Your task to perform on an android device: clear history in the chrome app Image 0: 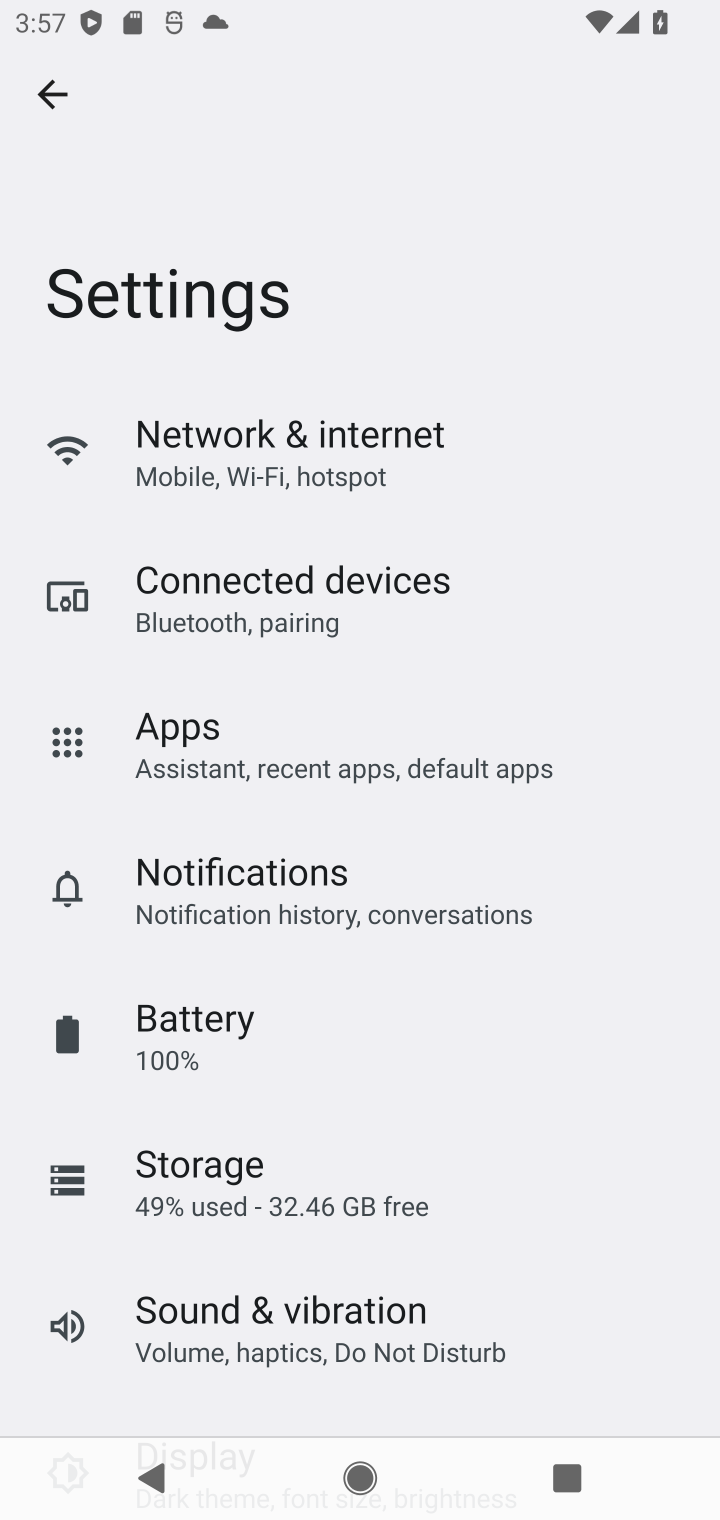
Step 0: press home button
Your task to perform on an android device: clear history in the chrome app Image 1: 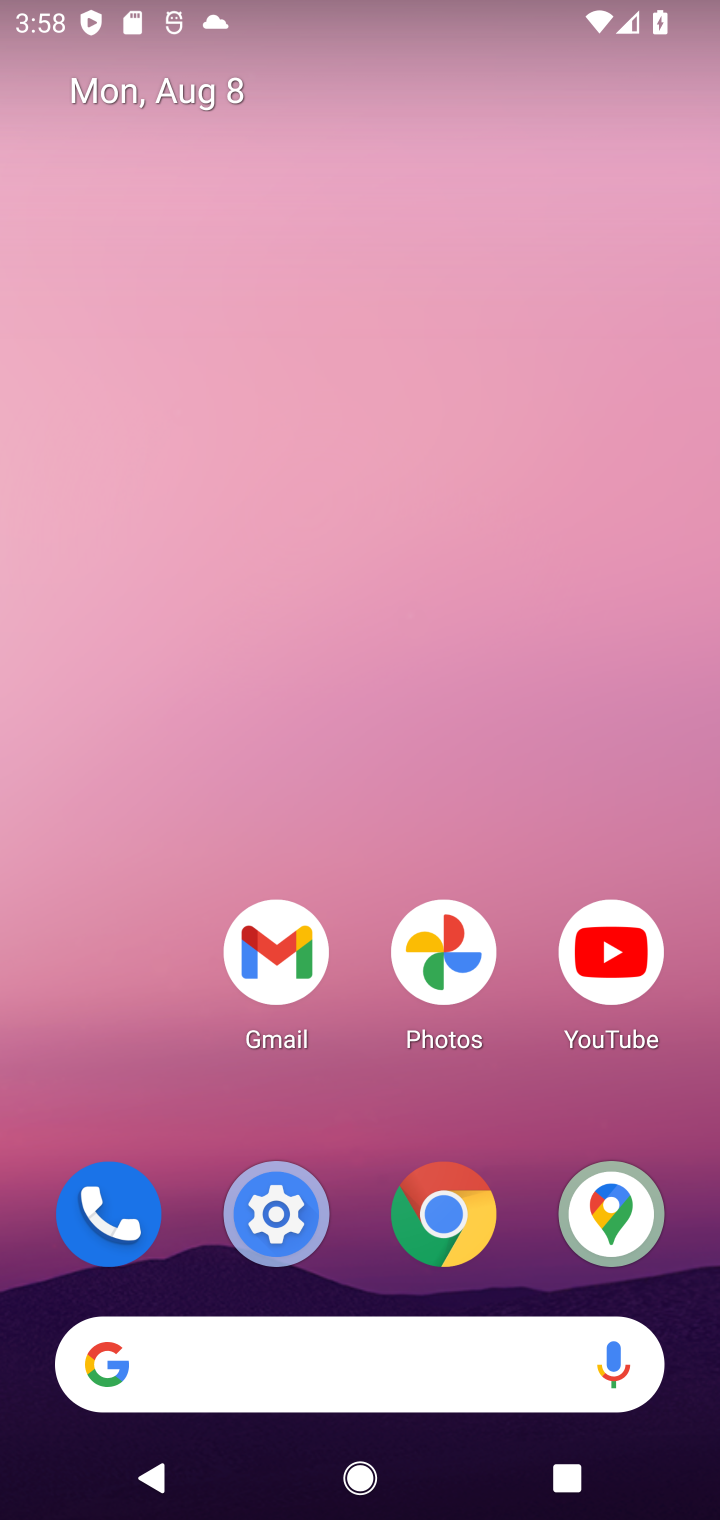
Step 1: click (439, 1225)
Your task to perform on an android device: clear history in the chrome app Image 2: 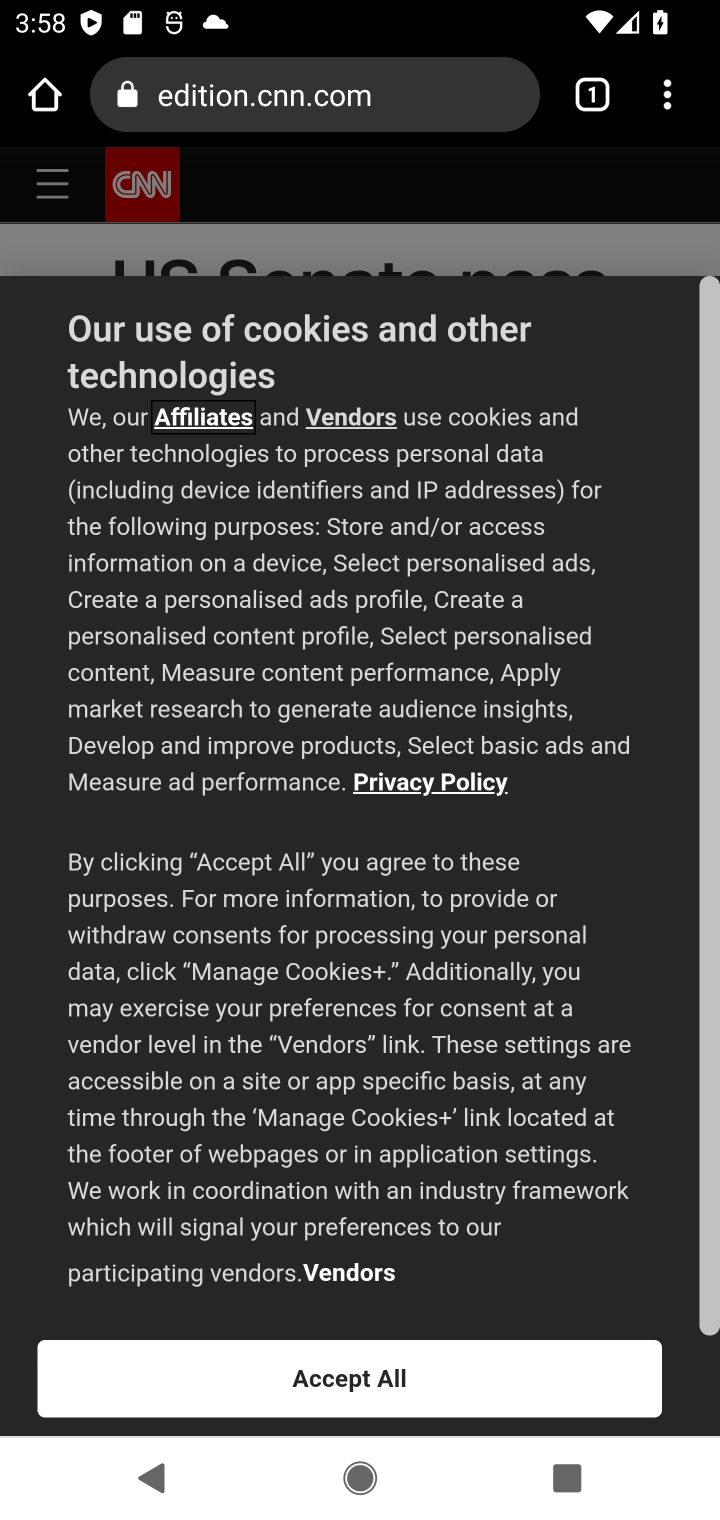
Step 2: click (670, 108)
Your task to perform on an android device: clear history in the chrome app Image 3: 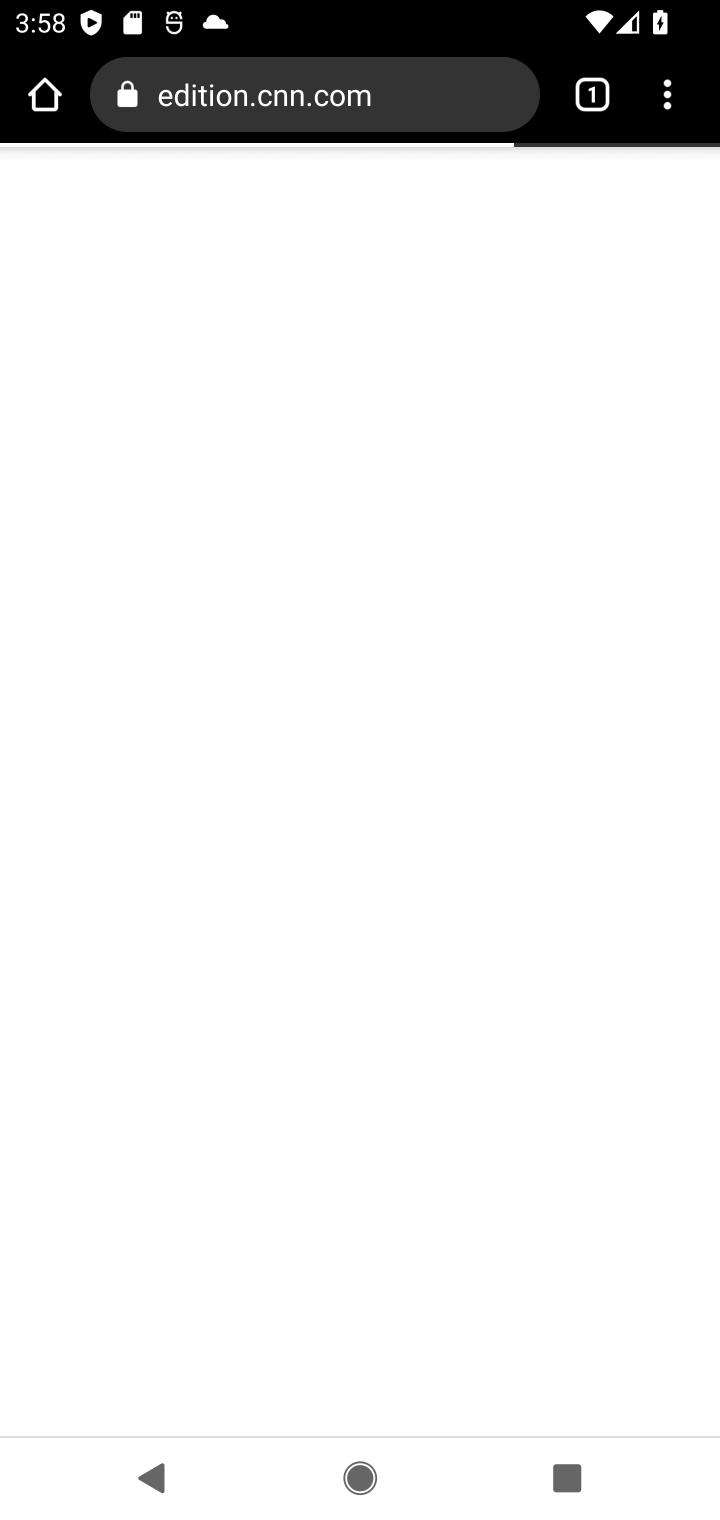
Step 3: click (670, 108)
Your task to perform on an android device: clear history in the chrome app Image 4: 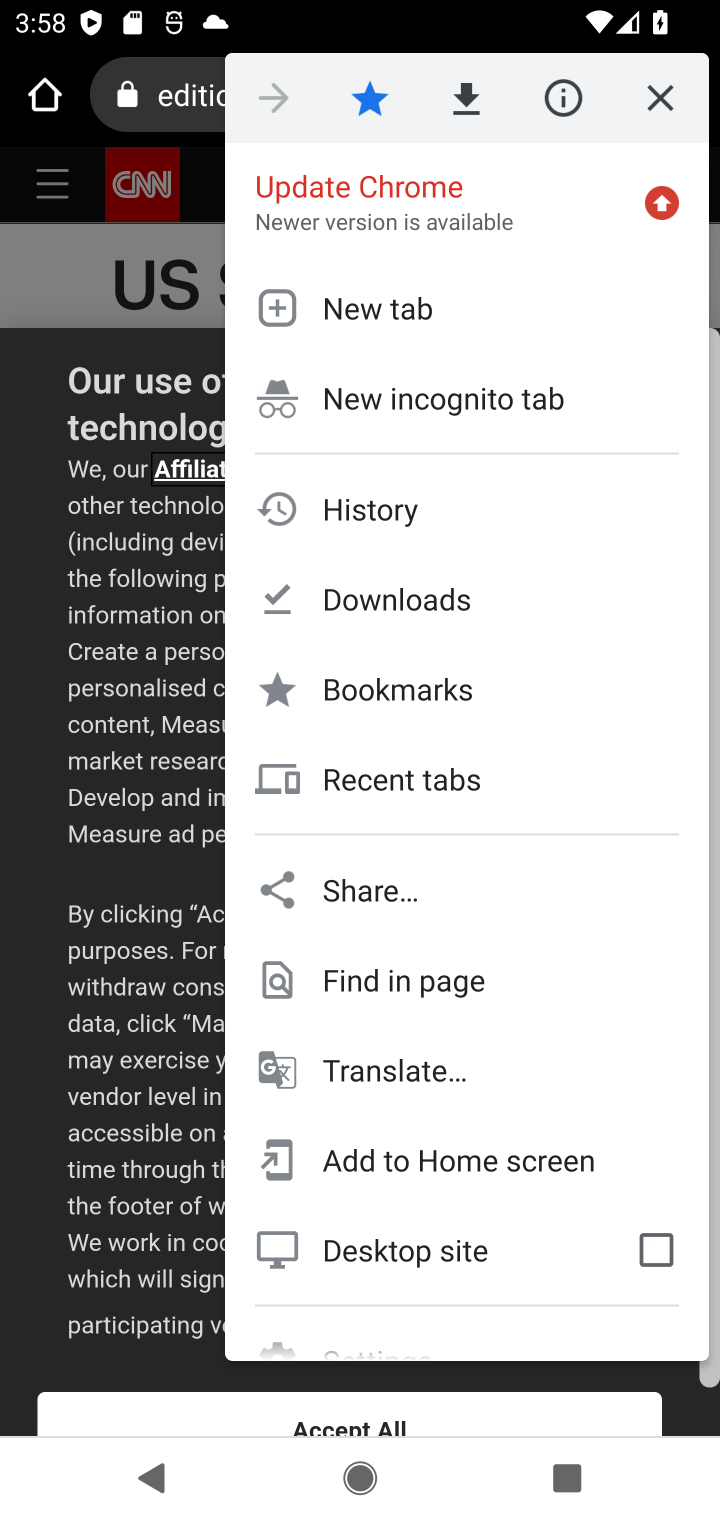
Step 4: click (353, 504)
Your task to perform on an android device: clear history in the chrome app Image 5: 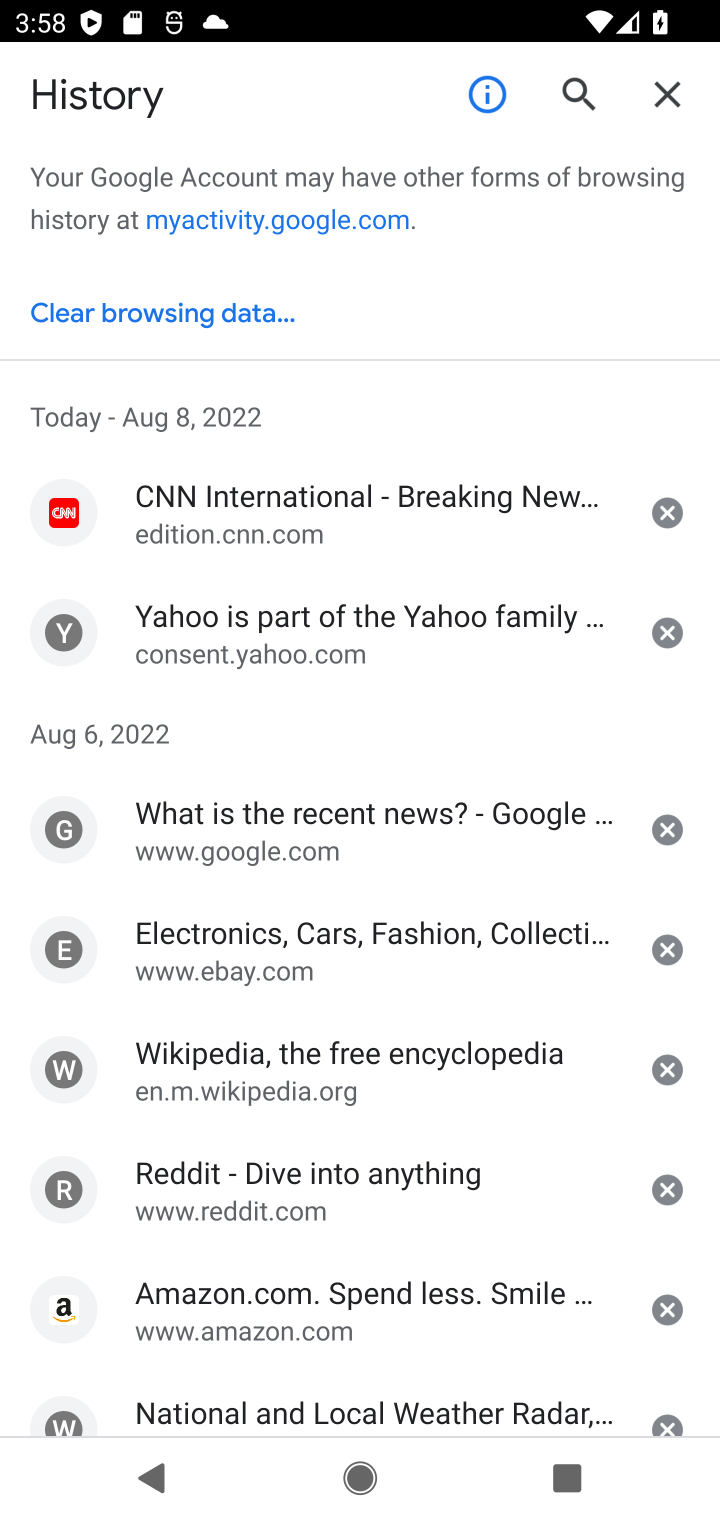
Step 5: click (152, 305)
Your task to perform on an android device: clear history in the chrome app Image 6: 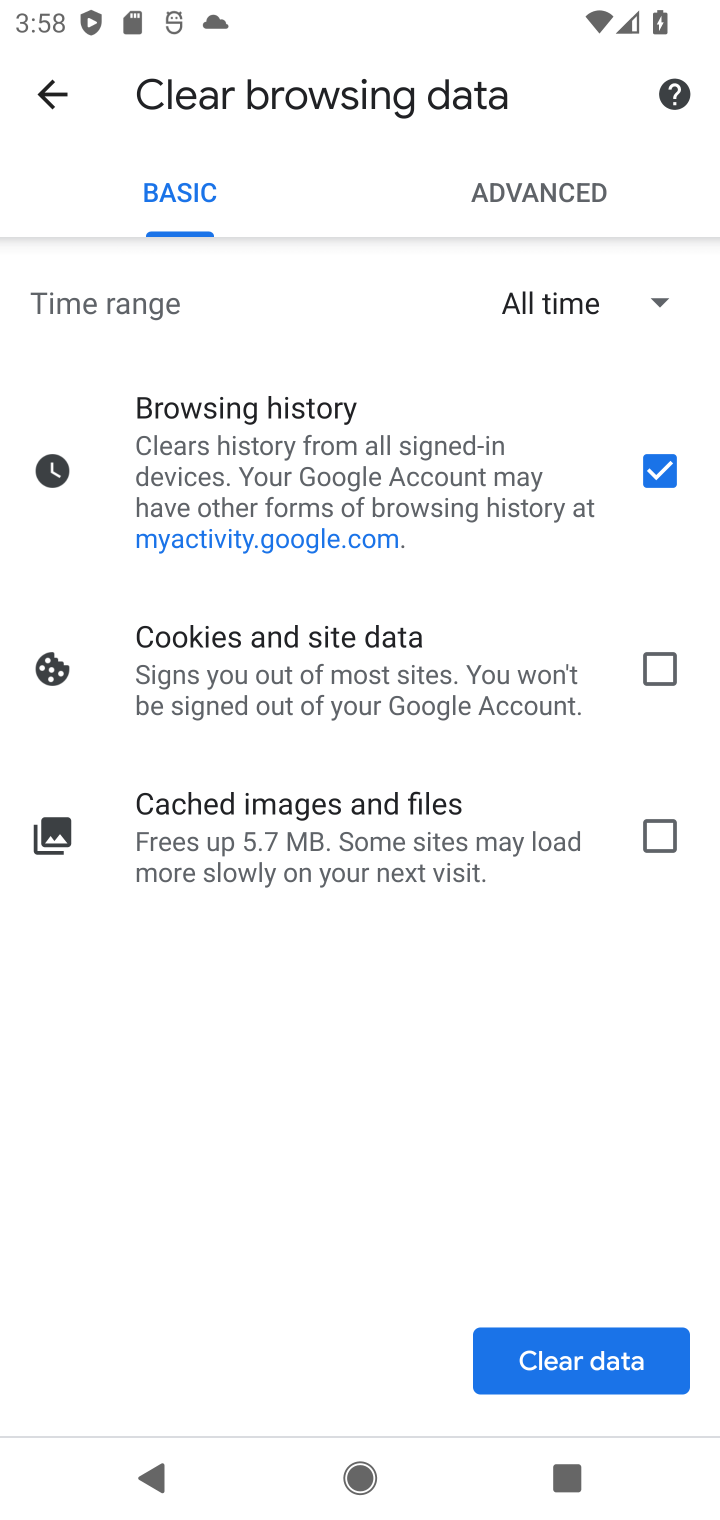
Step 6: click (635, 1365)
Your task to perform on an android device: clear history in the chrome app Image 7: 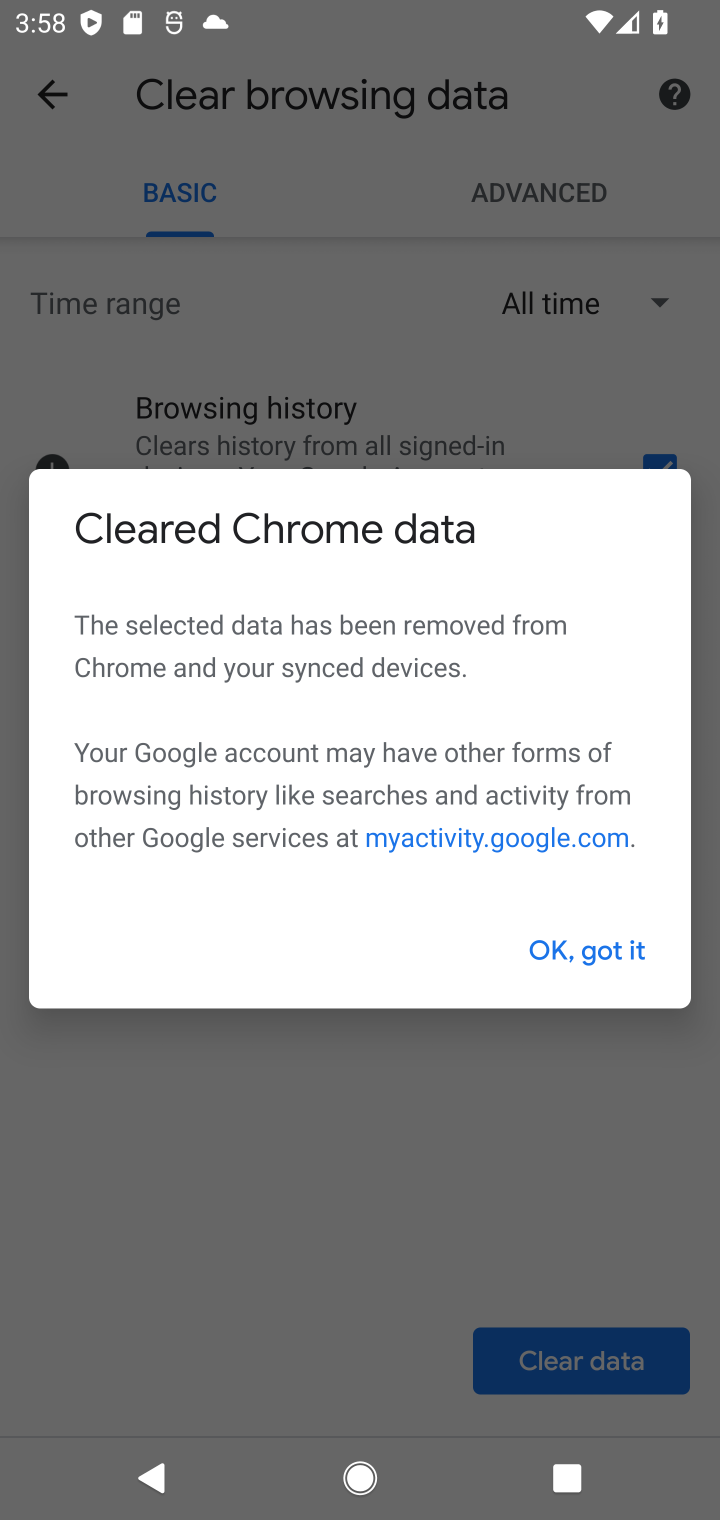
Step 7: click (600, 956)
Your task to perform on an android device: clear history in the chrome app Image 8: 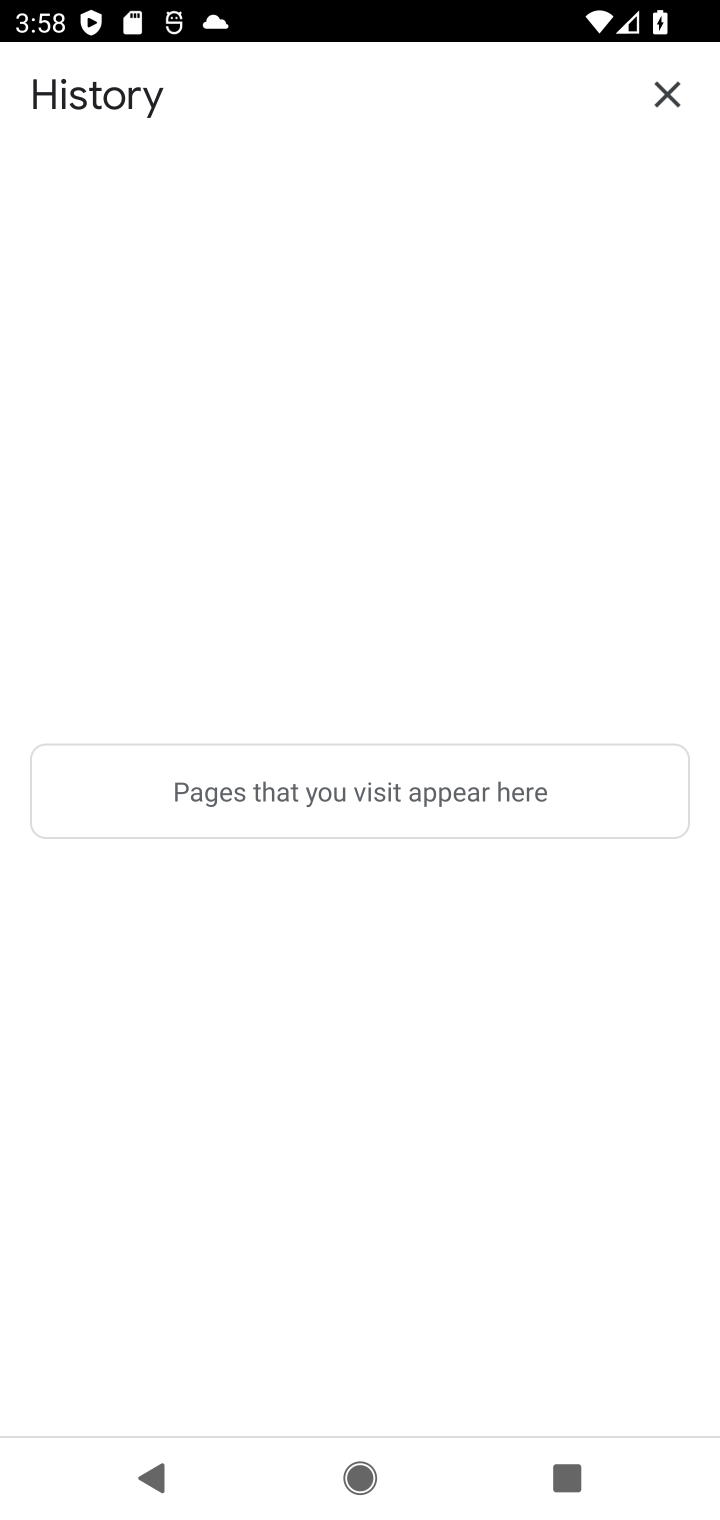
Step 8: task complete